Your task to perform on an android device: change the upload size in google photos Image 0: 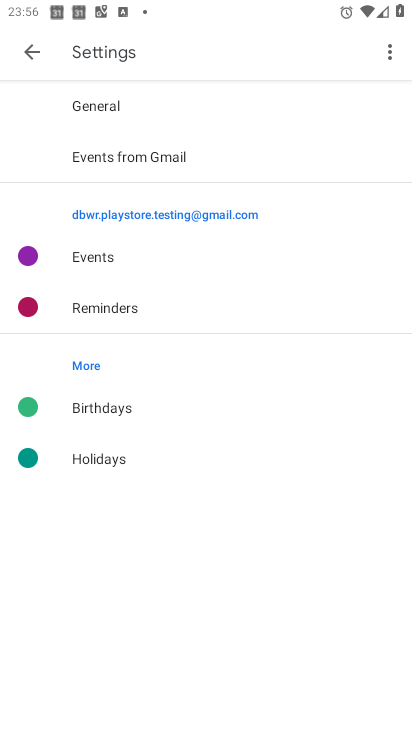
Step 0: press home button
Your task to perform on an android device: change the upload size in google photos Image 1: 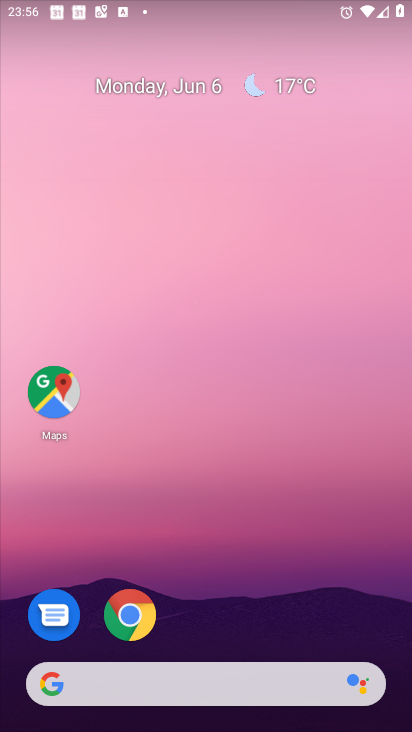
Step 1: drag from (406, 639) to (402, 280)
Your task to perform on an android device: change the upload size in google photos Image 2: 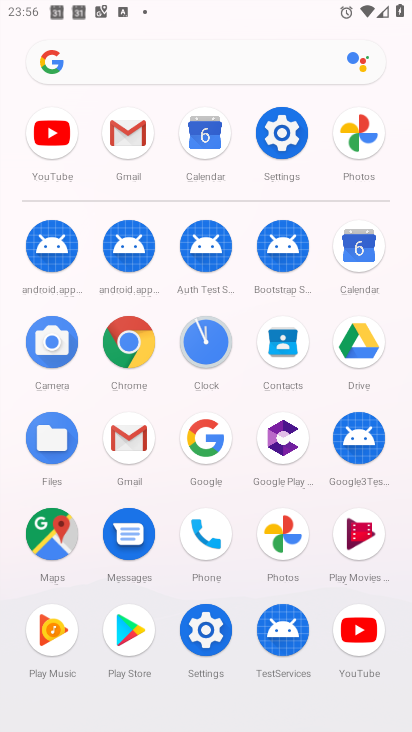
Step 2: click (276, 542)
Your task to perform on an android device: change the upload size in google photos Image 3: 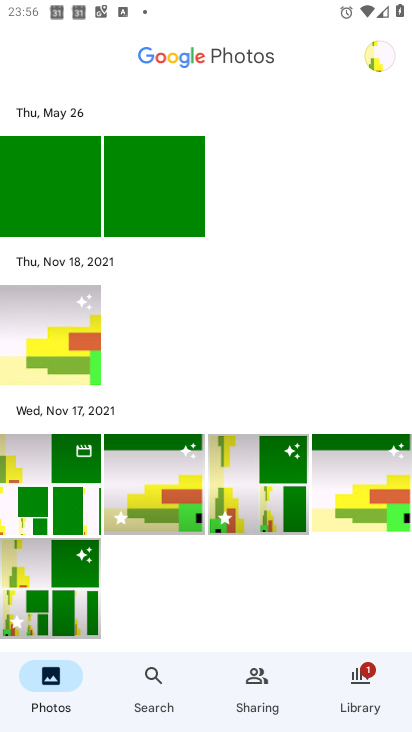
Step 3: task complete